Your task to perform on an android device: set the timer Image 0: 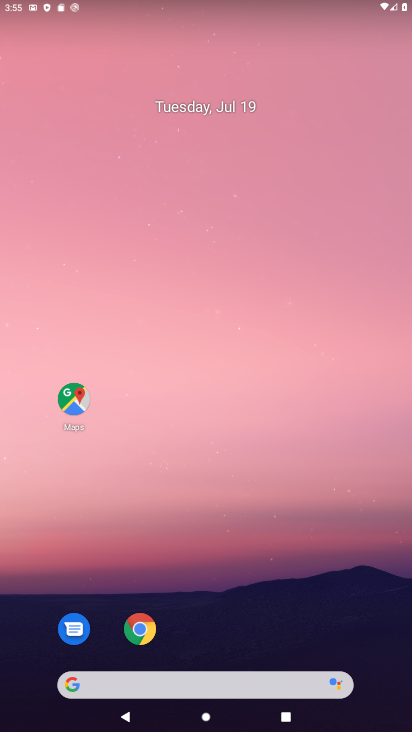
Step 0: press back button
Your task to perform on an android device: set the timer Image 1: 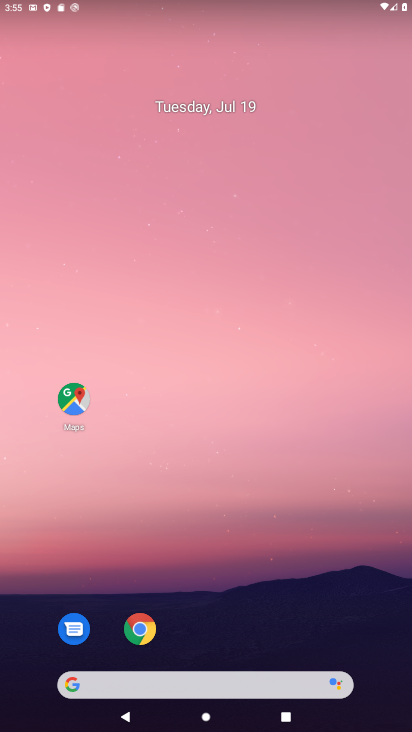
Step 1: press back button
Your task to perform on an android device: set the timer Image 2: 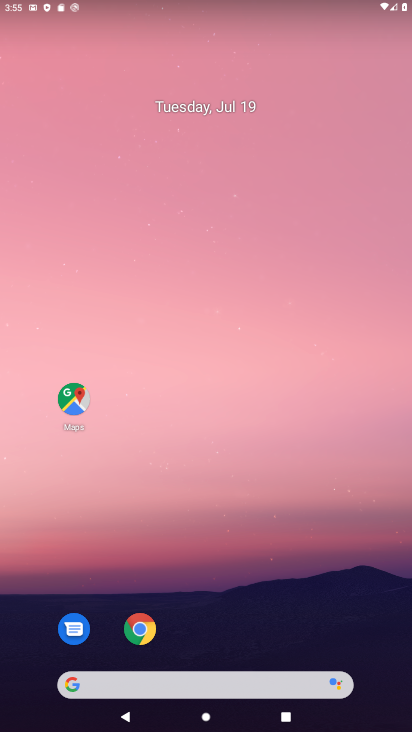
Step 2: drag from (238, 384) to (268, 158)
Your task to perform on an android device: set the timer Image 3: 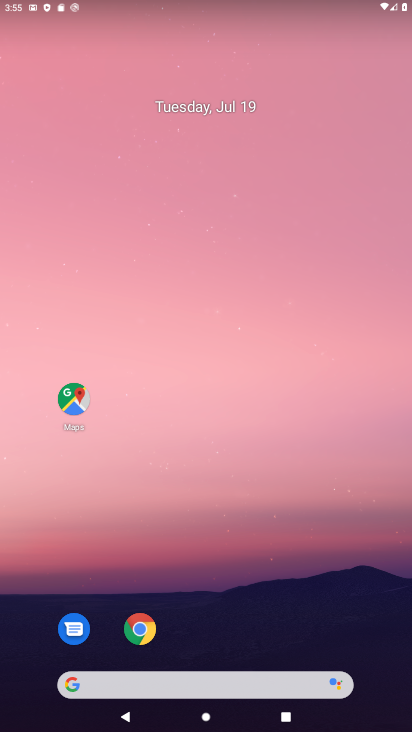
Step 3: drag from (270, 511) to (222, 150)
Your task to perform on an android device: set the timer Image 4: 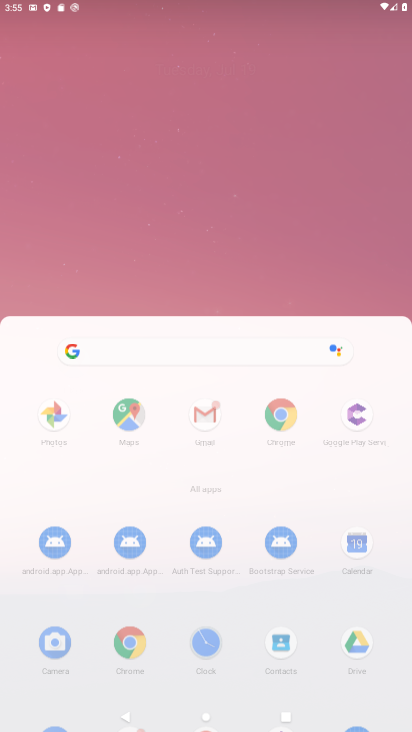
Step 4: drag from (252, 593) to (222, 244)
Your task to perform on an android device: set the timer Image 5: 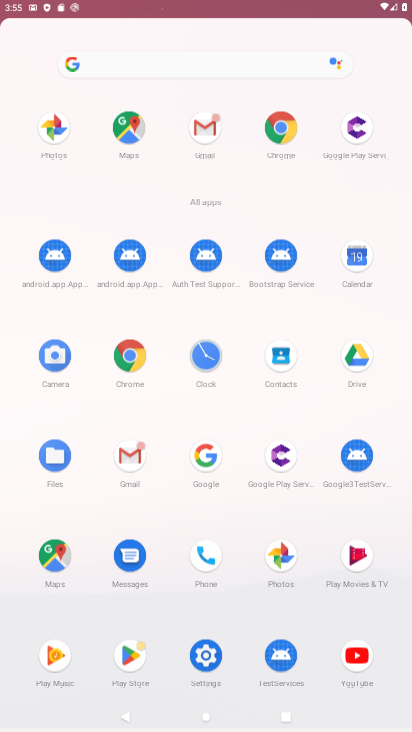
Step 5: click (241, 125)
Your task to perform on an android device: set the timer Image 6: 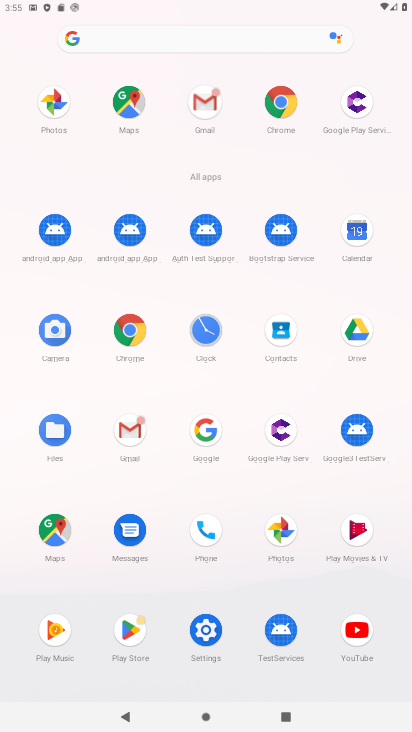
Step 6: drag from (252, 466) to (257, 62)
Your task to perform on an android device: set the timer Image 7: 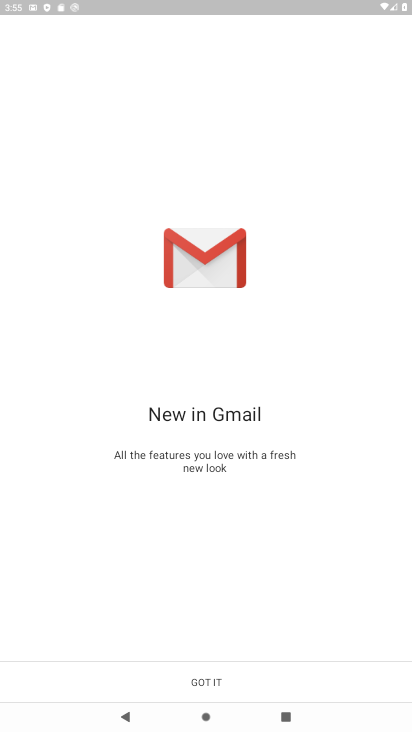
Step 7: press back button
Your task to perform on an android device: set the timer Image 8: 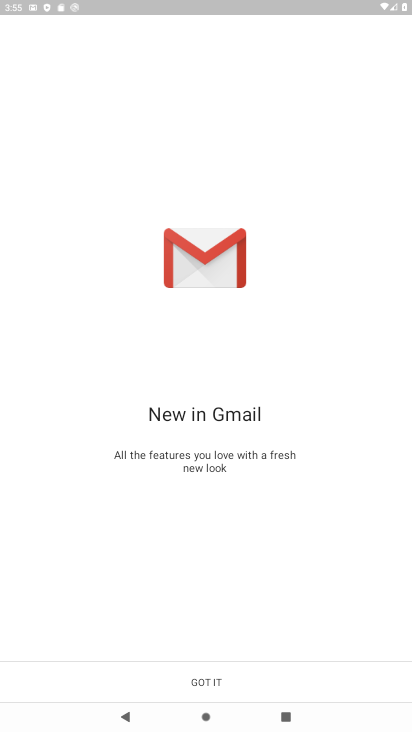
Step 8: press back button
Your task to perform on an android device: set the timer Image 9: 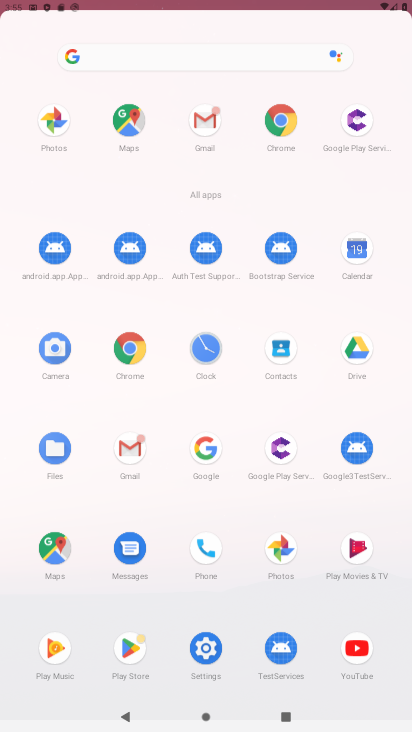
Step 9: click (205, 667)
Your task to perform on an android device: set the timer Image 10: 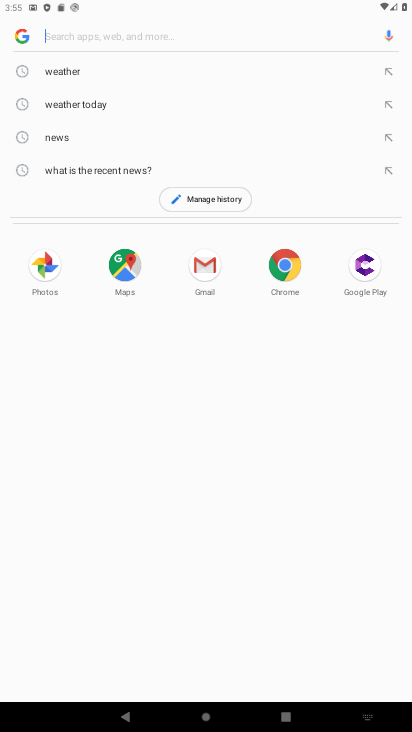
Step 10: press back button
Your task to perform on an android device: set the timer Image 11: 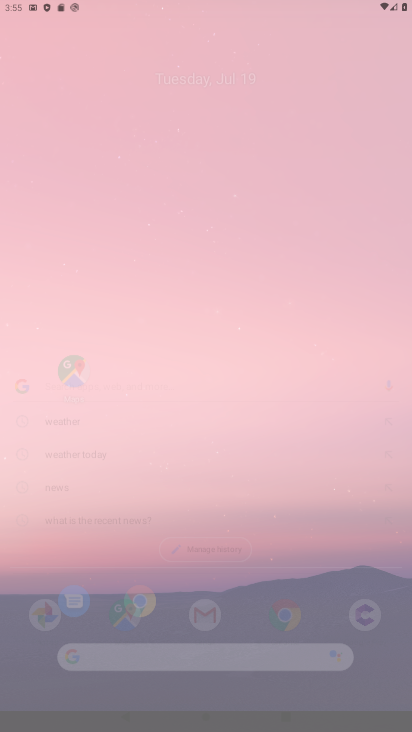
Step 11: press back button
Your task to perform on an android device: set the timer Image 12: 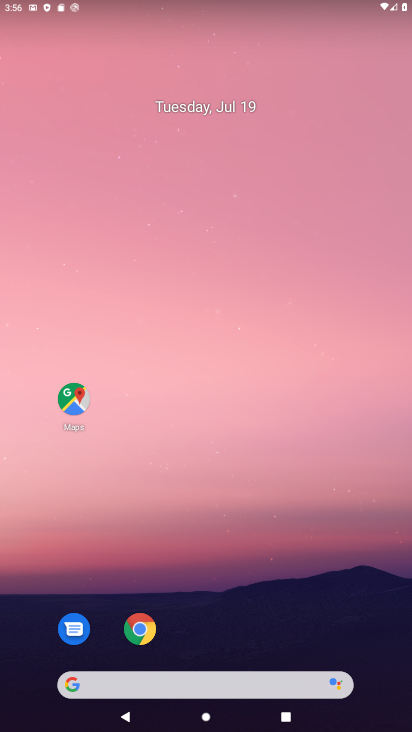
Step 12: drag from (241, 577) to (187, 177)
Your task to perform on an android device: set the timer Image 13: 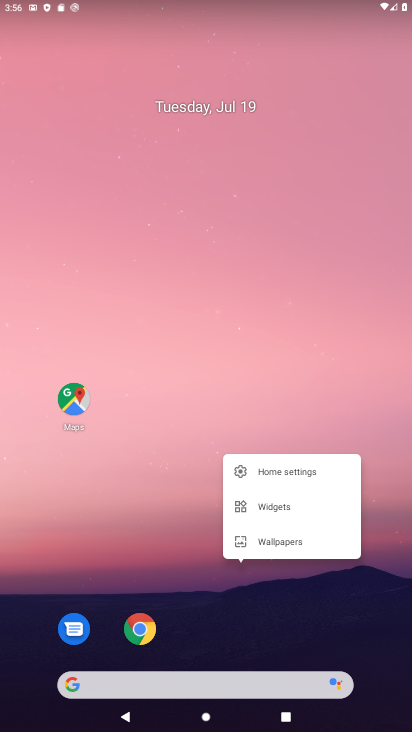
Step 13: click (162, 104)
Your task to perform on an android device: set the timer Image 14: 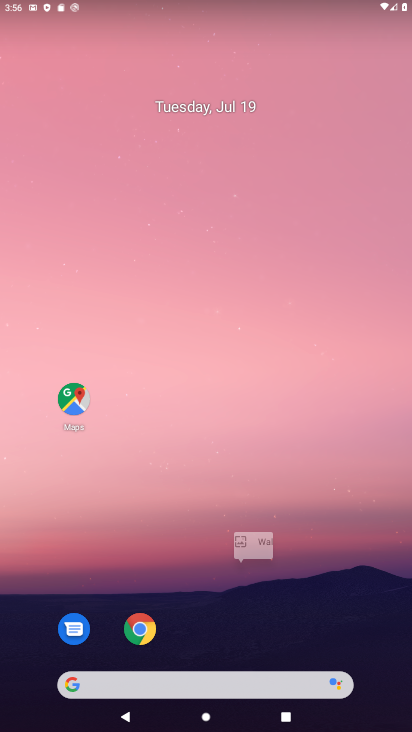
Step 14: drag from (263, 489) to (234, 161)
Your task to perform on an android device: set the timer Image 15: 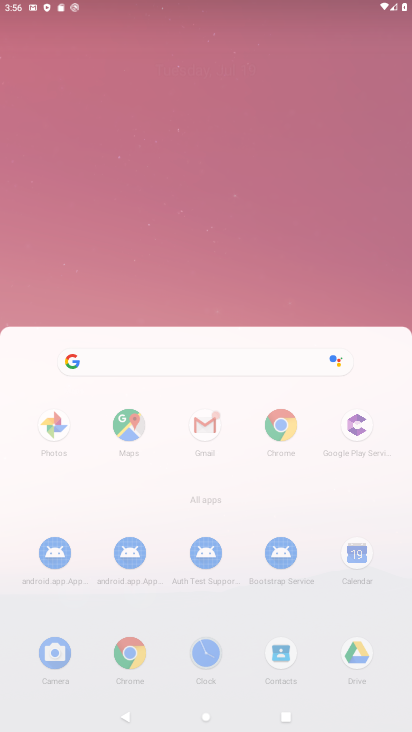
Step 15: drag from (170, 270) to (158, 84)
Your task to perform on an android device: set the timer Image 16: 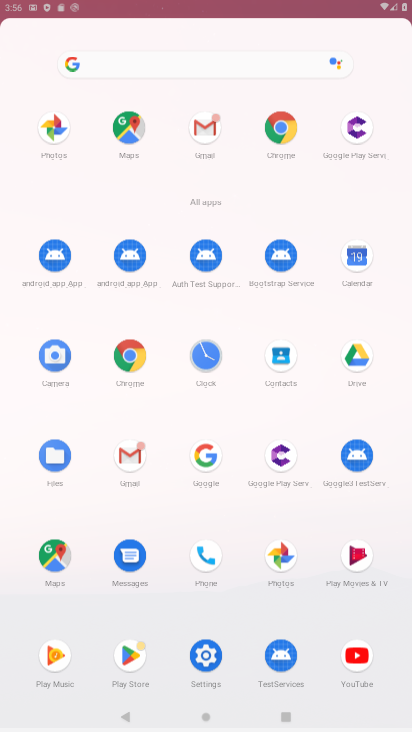
Step 16: click (120, 465)
Your task to perform on an android device: set the timer Image 17: 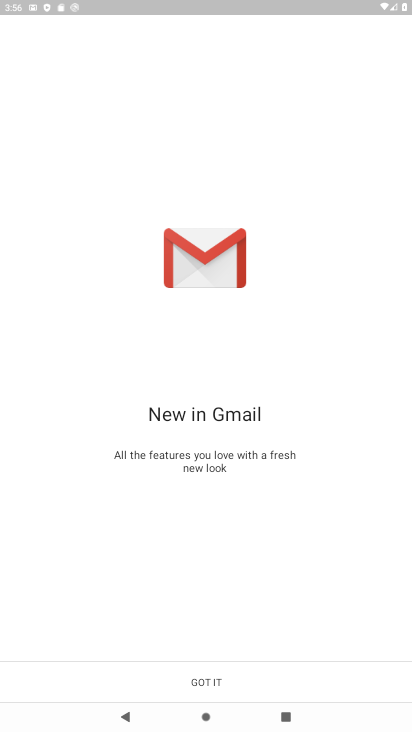
Step 17: press back button
Your task to perform on an android device: set the timer Image 18: 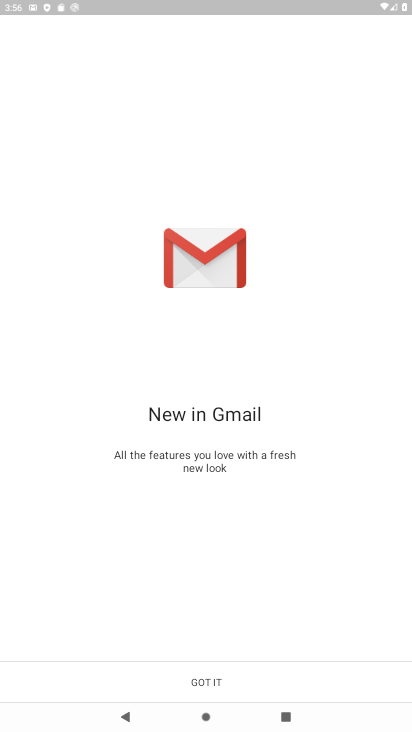
Step 18: press back button
Your task to perform on an android device: set the timer Image 19: 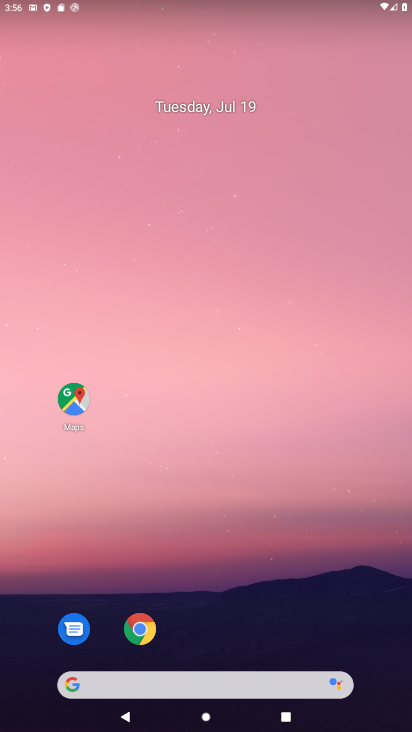
Step 19: drag from (225, 512) to (200, 40)
Your task to perform on an android device: set the timer Image 20: 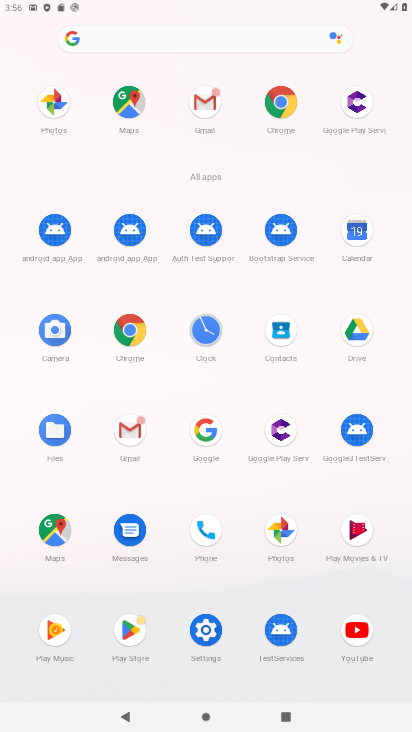
Step 20: click (207, 328)
Your task to perform on an android device: set the timer Image 21: 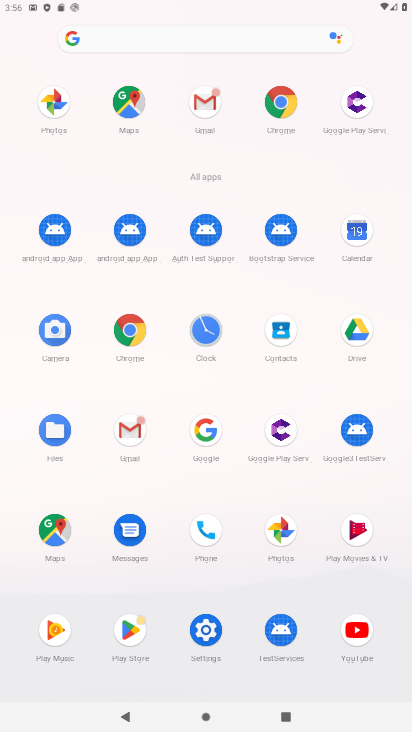
Step 21: click (207, 322)
Your task to perform on an android device: set the timer Image 22: 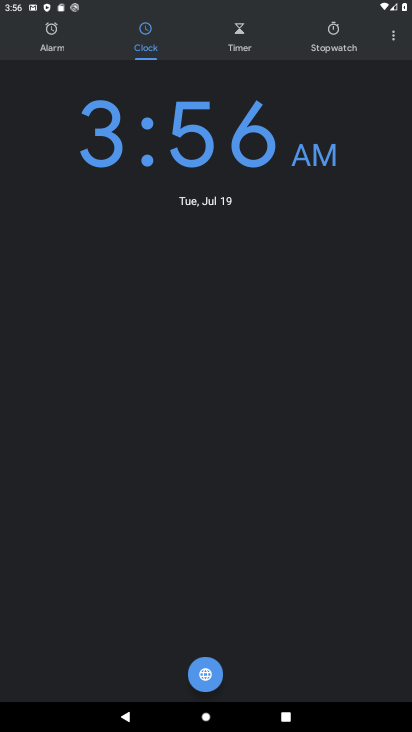
Step 22: drag from (401, 38) to (342, 70)
Your task to perform on an android device: set the timer Image 23: 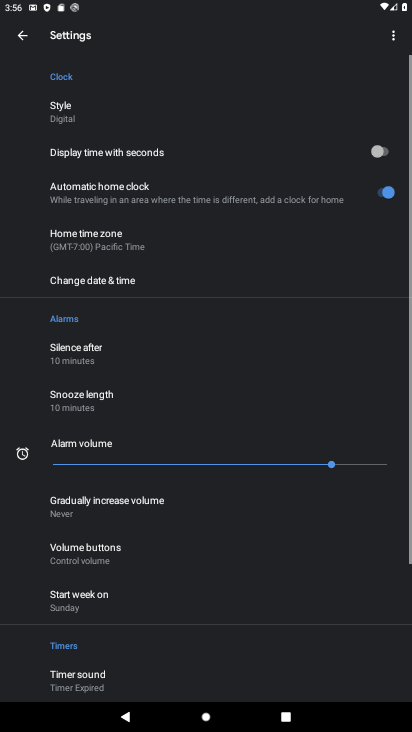
Step 23: click (332, 68)
Your task to perform on an android device: set the timer Image 24: 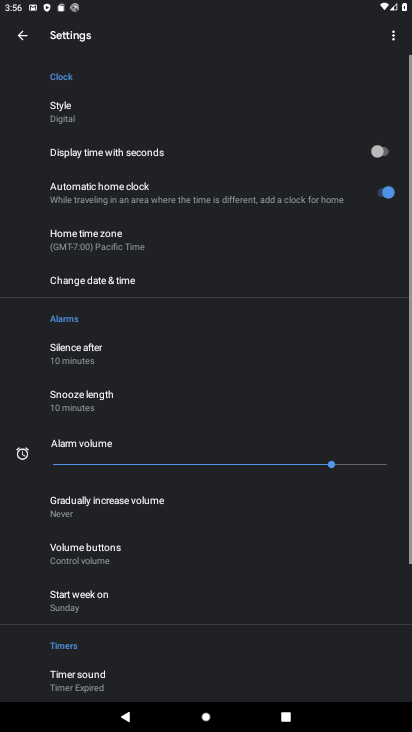
Step 24: click (332, 68)
Your task to perform on an android device: set the timer Image 25: 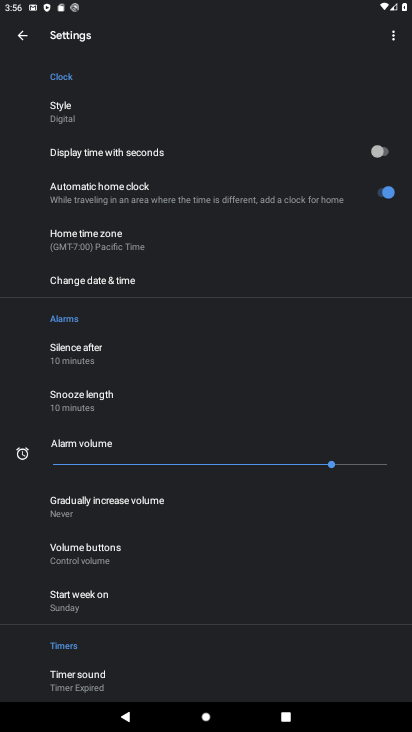
Step 25: click (76, 678)
Your task to perform on an android device: set the timer Image 26: 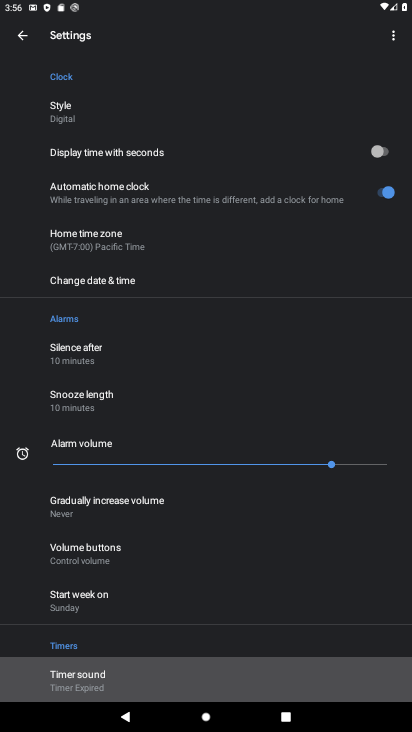
Step 26: click (76, 677)
Your task to perform on an android device: set the timer Image 27: 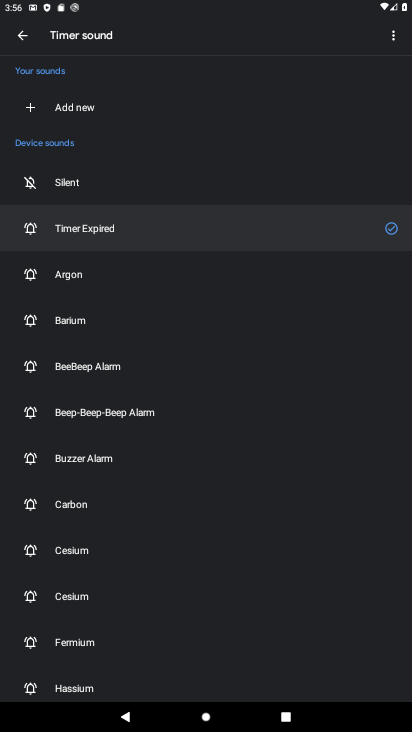
Step 27: click (37, 420)
Your task to perform on an android device: set the timer Image 28: 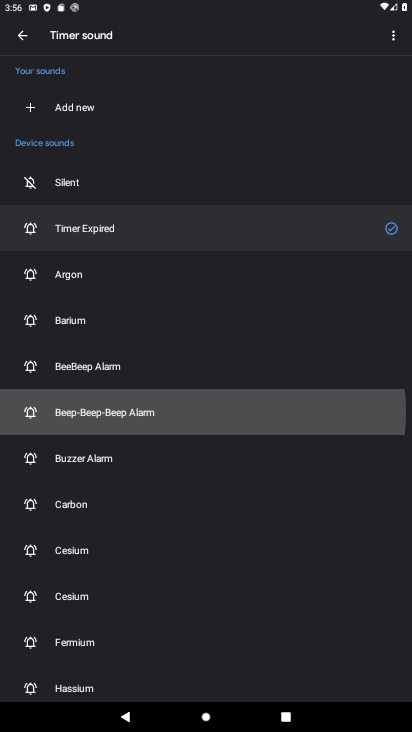
Step 28: click (41, 414)
Your task to perform on an android device: set the timer Image 29: 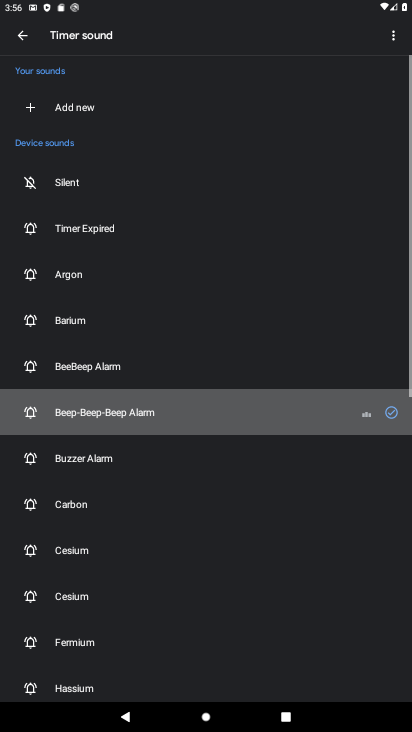
Step 29: click (44, 409)
Your task to perform on an android device: set the timer Image 30: 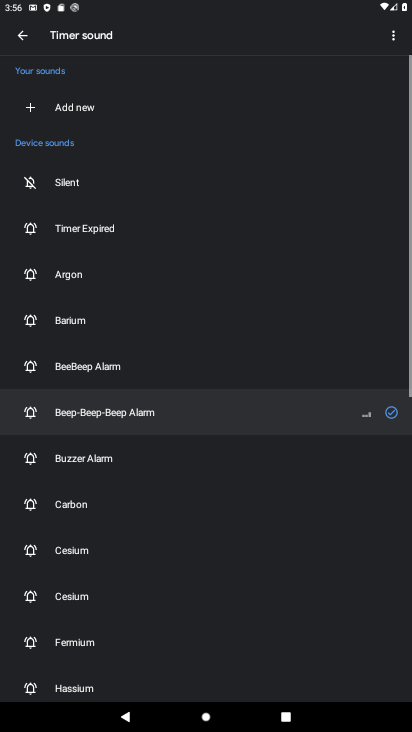
Step 30: task complete